Your task to perform on an android device: turn on javascript in the chrome app Image 0: 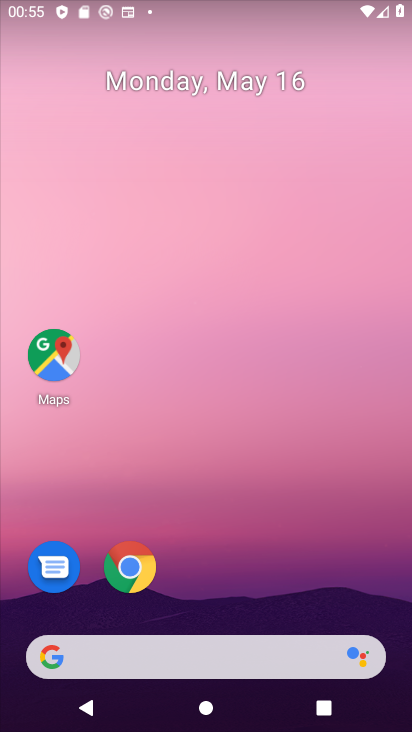
Step 0: click (153, 560)
Your task to perform on an android device: turn on javascript in the chrome app Image 1: 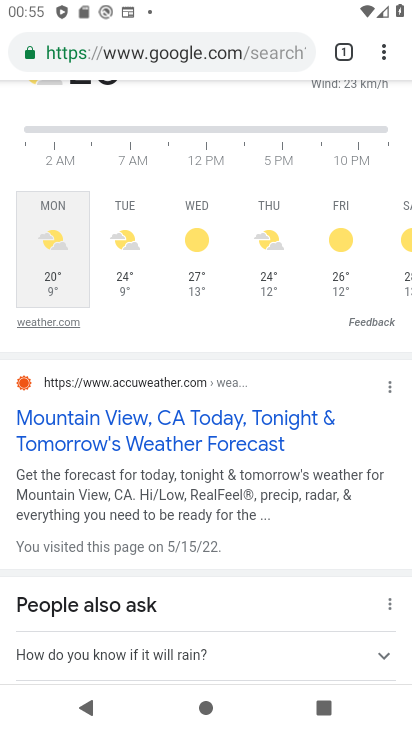
Step 1: click (382, 63)
Your task to perform on an android device: turn on javascript in the chrome app Image 2: 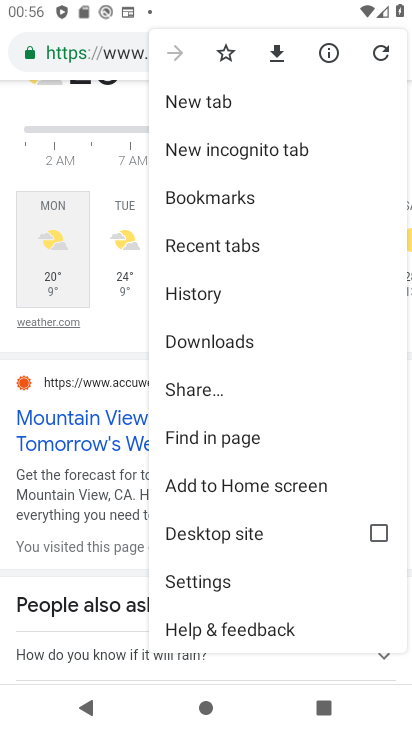
Step 2: click (257, 588)
Your task to perform on an android device: turn on javascript in the chrome app Image 3: 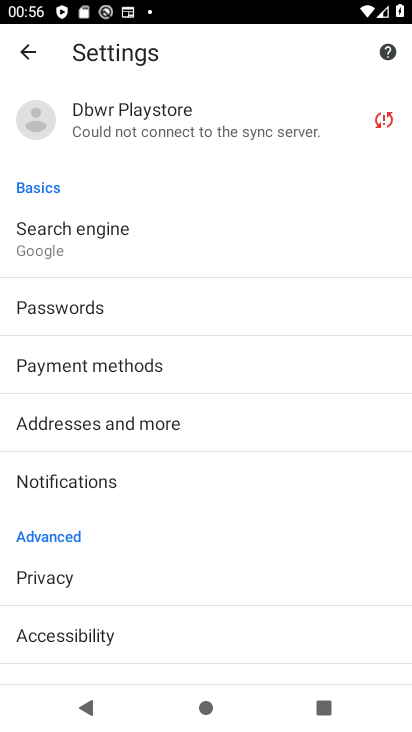
Step 3: drag from (272, 639) to (240, 138)
Your task to perform on an android device: turn on javascript in the chrome app Image 4: 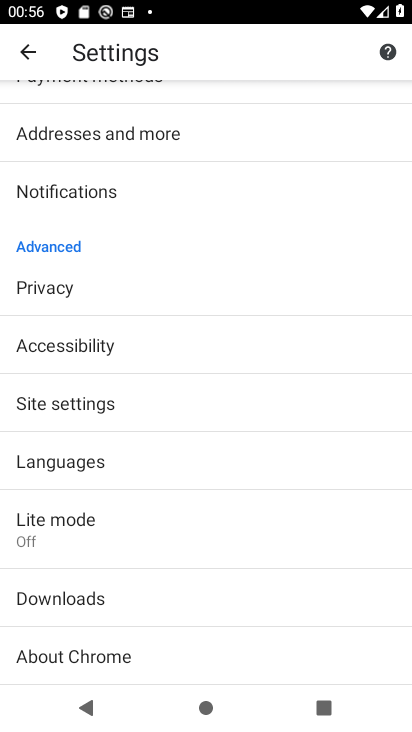
Step 4: click (189, 409)
Your task to perform on an android device: turn on javascript in the chrome app Image 5: 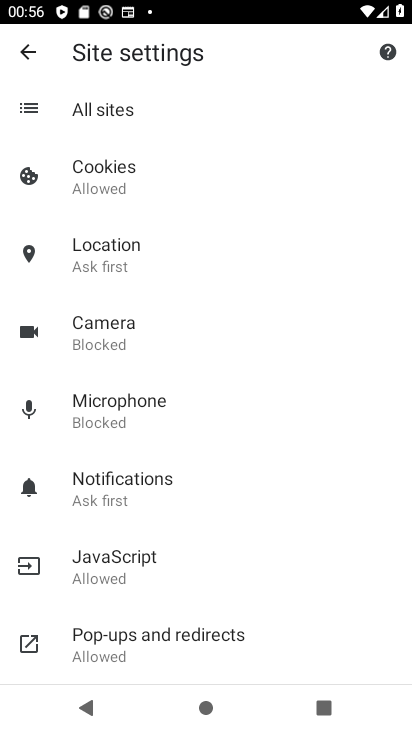
Step 5: click (213, 559)
Your task to perform on an android device: turn on javascript in the chrome app Image 6: 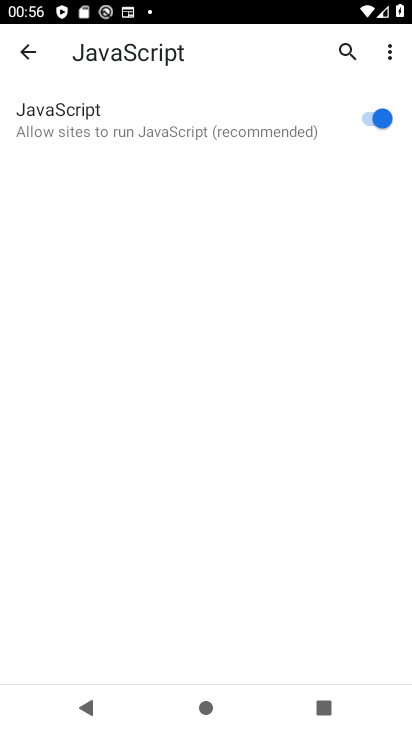
Step 6: task complete